Your task to perform on an android device: toggle improve location accuracy Image 0: 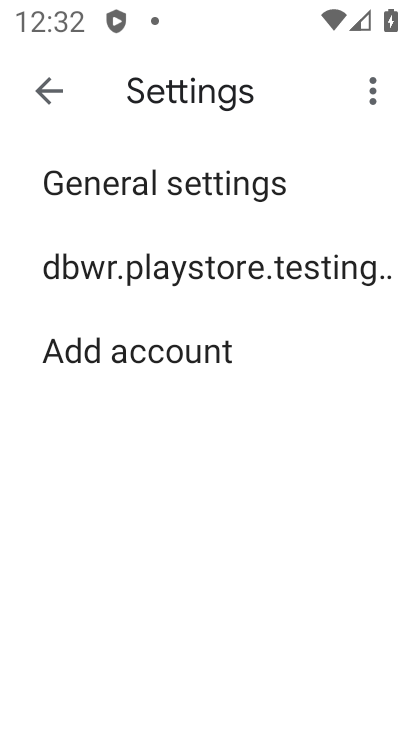
Step 0: press home button
Your task to perform on an android device: toggle improve location accuracy Image 1: 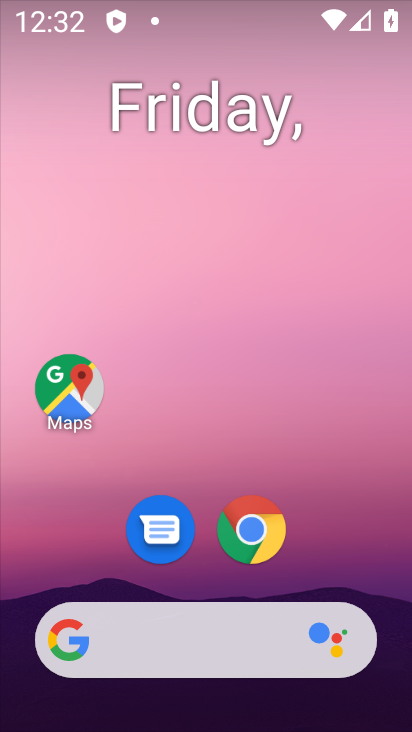
Step 1: drag from (125, 613) to (125, 195)
Your task to perform on an android device: toggle improve location accuracy Image 2: 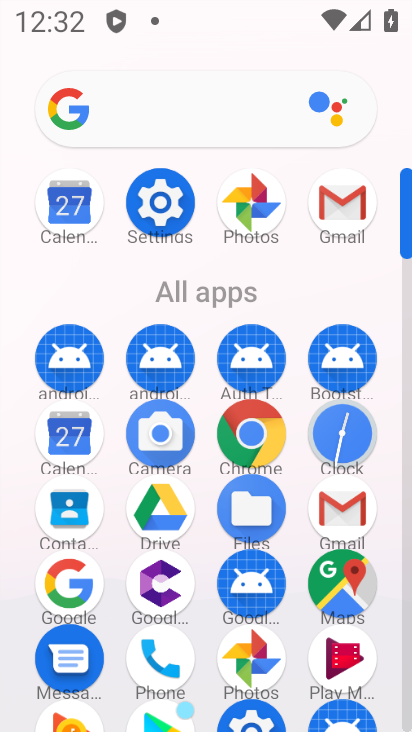
Step 2: click (161, 207)
Your task to perform on an android device: toggle improve location accuracy Image 3: 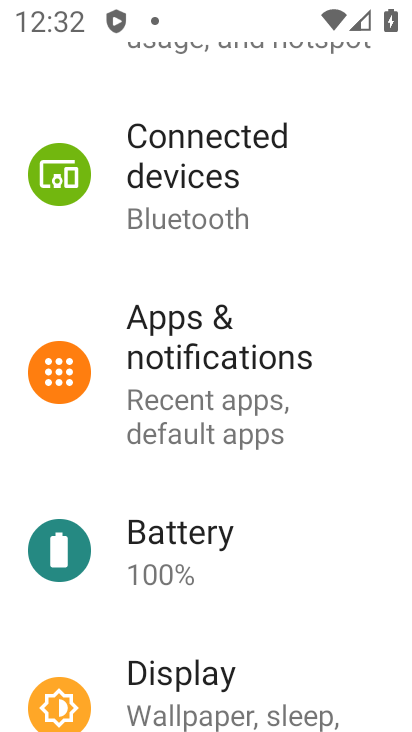
Step 3: drag from (190, 698) to (190, 285)
Your task to perform on an android device: toggle improve location accuracy Image 4: 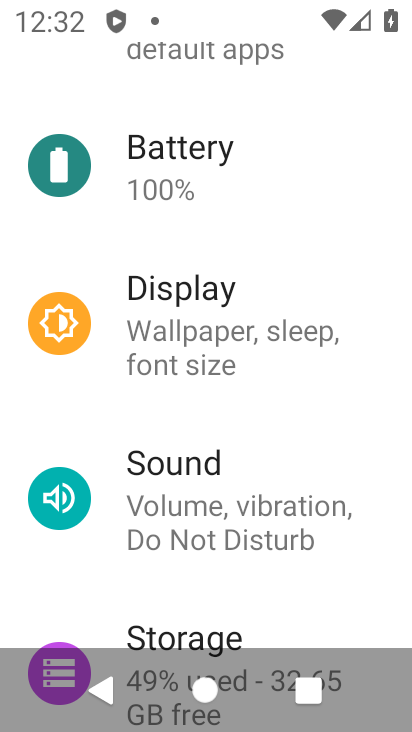
Step 4: drag from (174, 630) to (175, 331)
Your task to perform on an android device: toggle improve location accuracy Image 5: 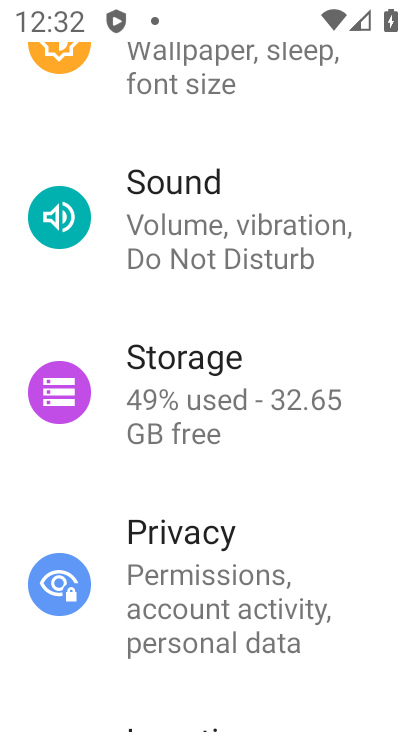
Step 5: drag from (209, 569) to (204, 279)
Your task to perform on an android device: toggle improve location accuracy Image 6: 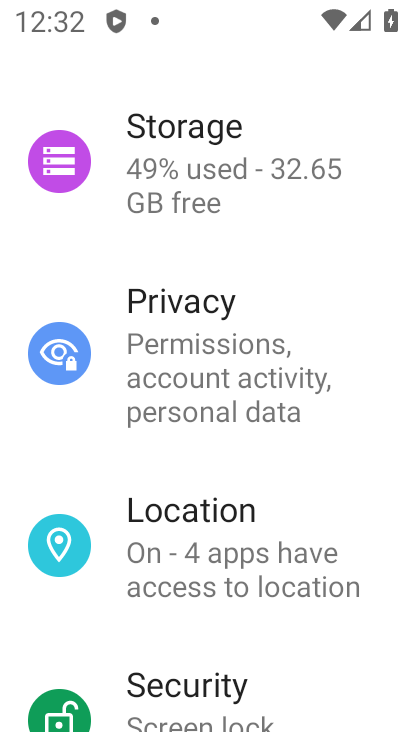
Step 6: click (204, 549)
Your task to perform on an android device: toggle improve location accuracy Image 7: 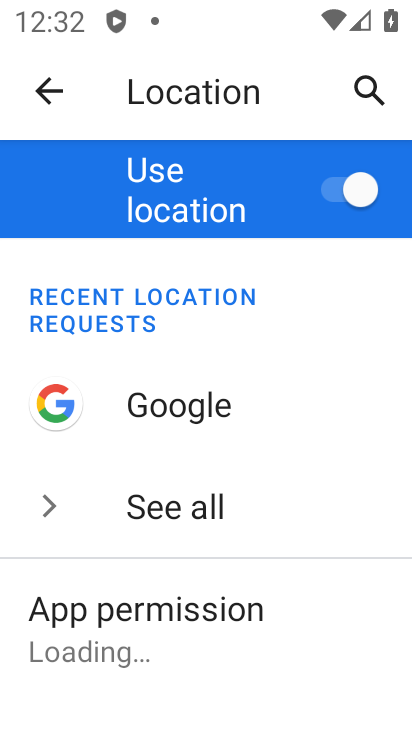
Step 7: drag from (159, 674) to (178, 284)
Your task to perform on an android device: toggle improve location accuracy Image 8: 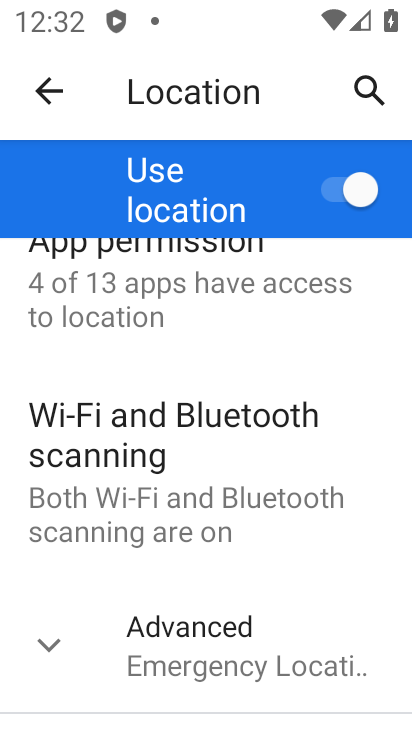
Step 8: click (194, 645)
Your task to perform on an android device: toggle improve location accuracy Image 9: 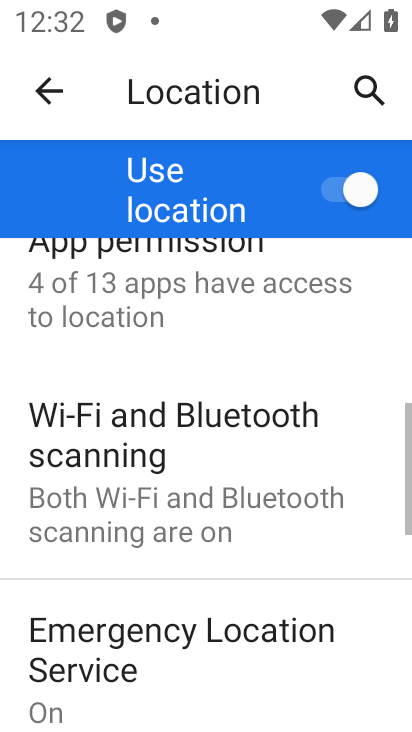
Step 9: drag from (221, 675) to (218, 382)
Your task to perform on an android device: toggle improve location accuracy Image 10: 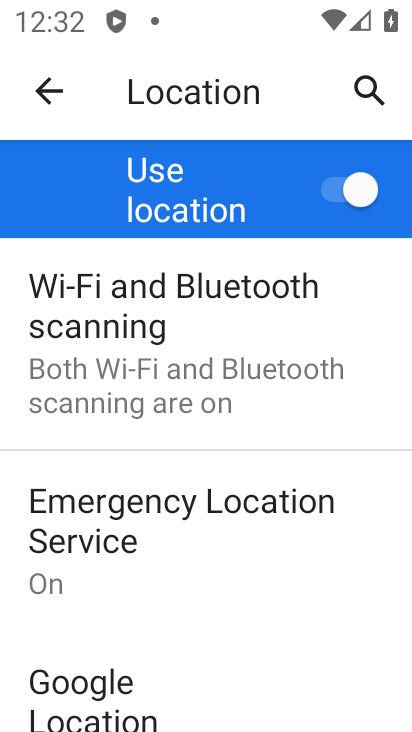
Step 10: drag from (165, 696) to (182, 410)
Your task to perform on an android device: toggle improve location accuracy Image 11: 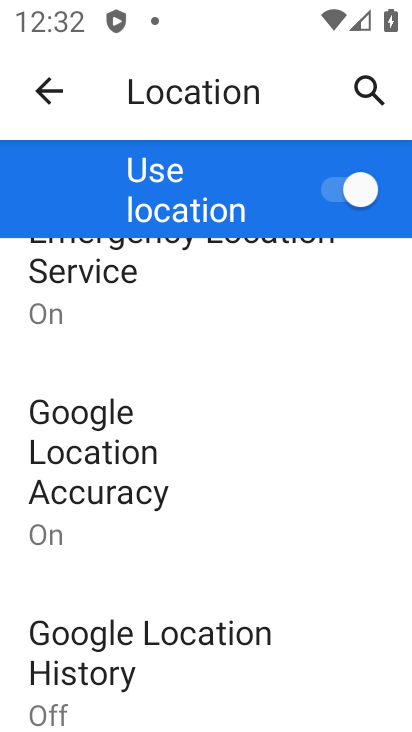
Step 11: click (106, 474)
Your task to perform on an android device: toggle improve location accuracy Image 12: 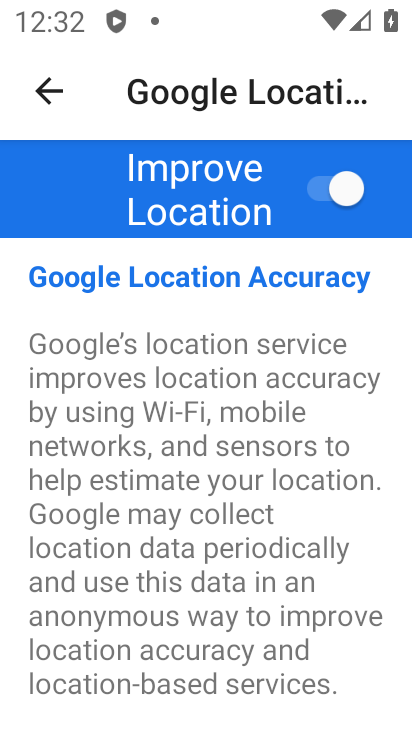
Step 12: click (304, 191)
Your task to perform on an android device: toggle improve location accuracy Image 13: 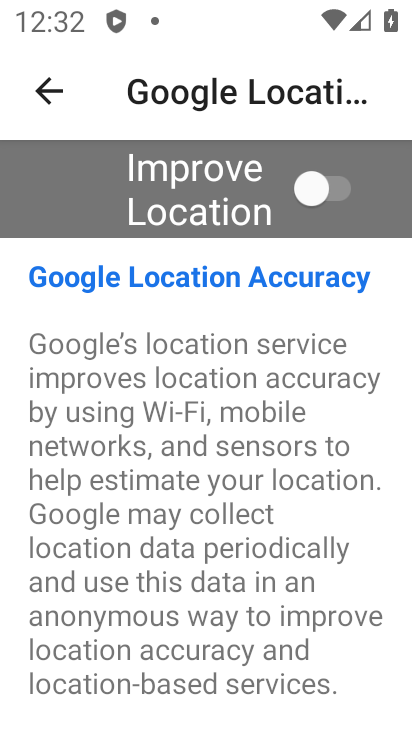
Step 13: task complete